Your task to perform on an android device: Set an alarm for 8am Image 0: 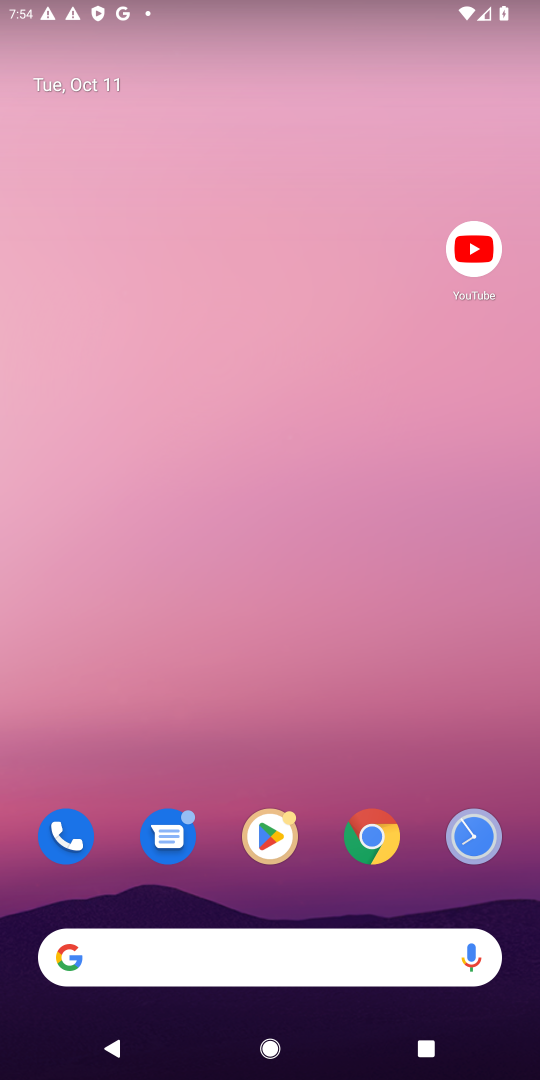
Step 0: drag from (296, 956) to (490, 259)
Your task to perform on an android device: Set an alarm for 8am Image 1: 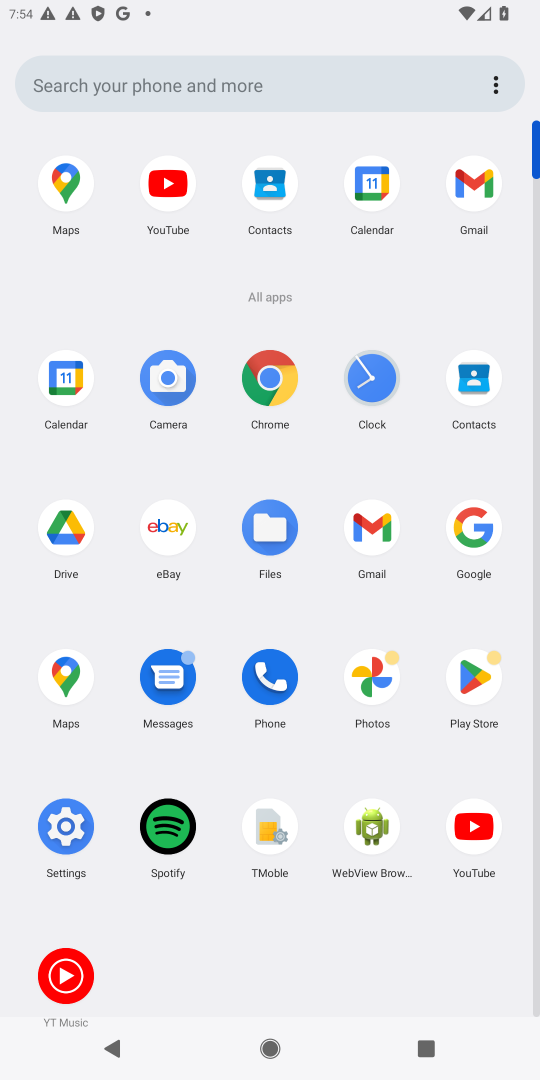
Step 1: click (378, 376)
Your task to perform on an android device: Set an alarm for 8am Image 2: 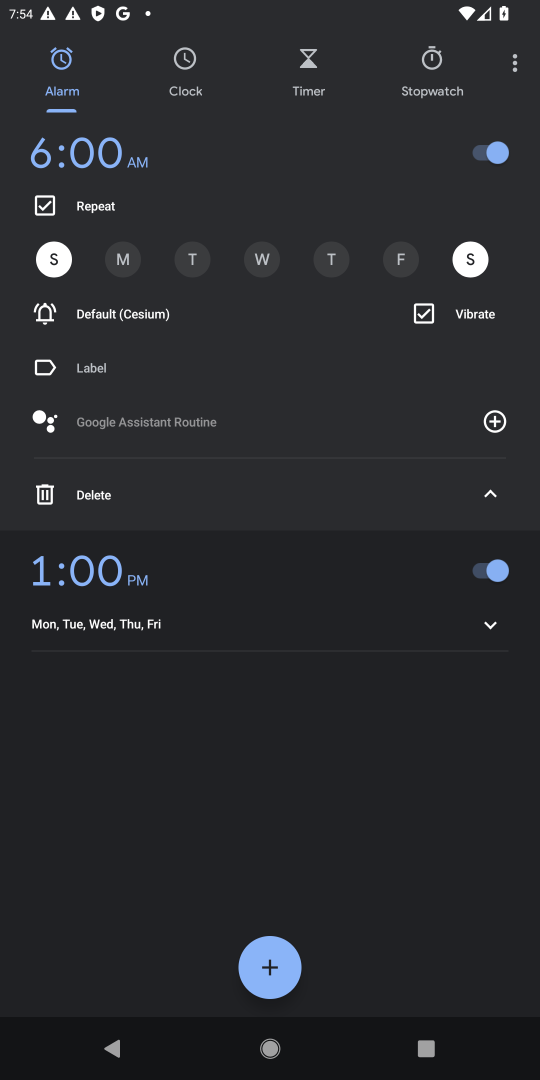
Step 2: click (187, 172)
Your task to perform on an android device: Set an alarm for 8am Image 3: 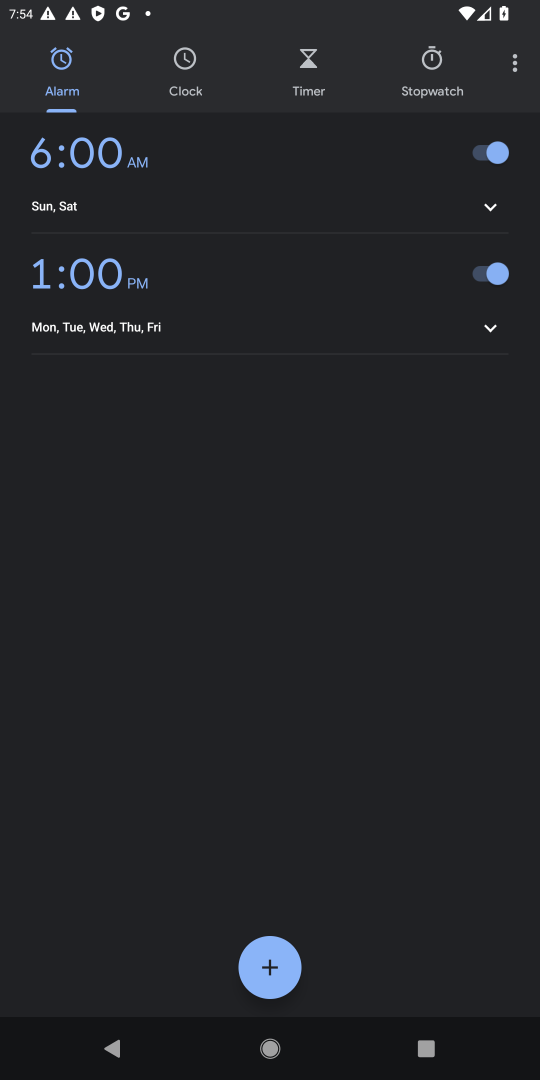
Step 3: click (73, 155)
Your task to perform on an android device: Set an alarm for 8am Image 4: 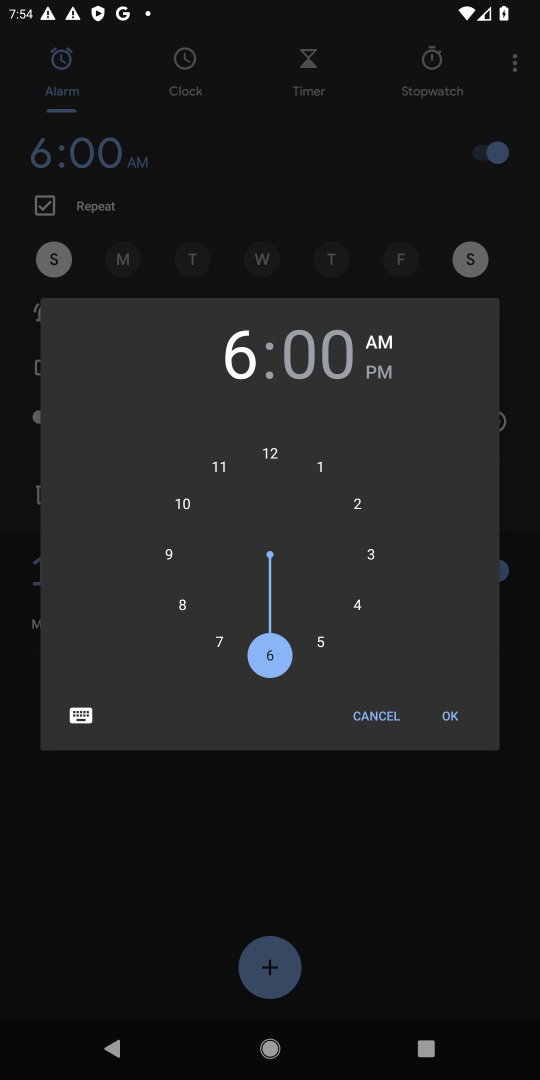
Step 4: click (185, 607)
Your task to perform on an android device: Set an alarm for 8am Image 5: 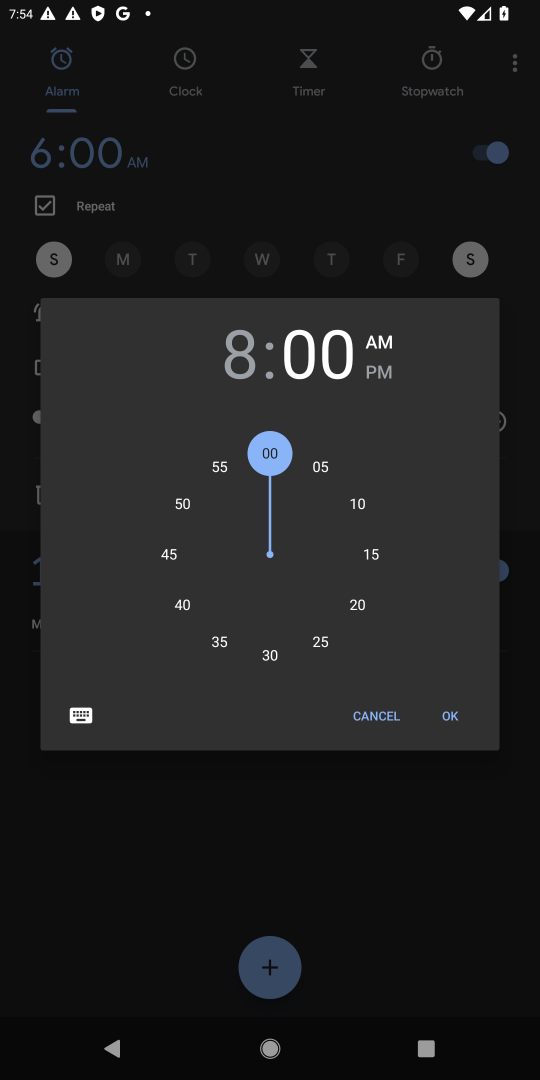
Step 5: click (446, 714)
Your task to perform on an android device: Set an alarm for 8am Image 6: 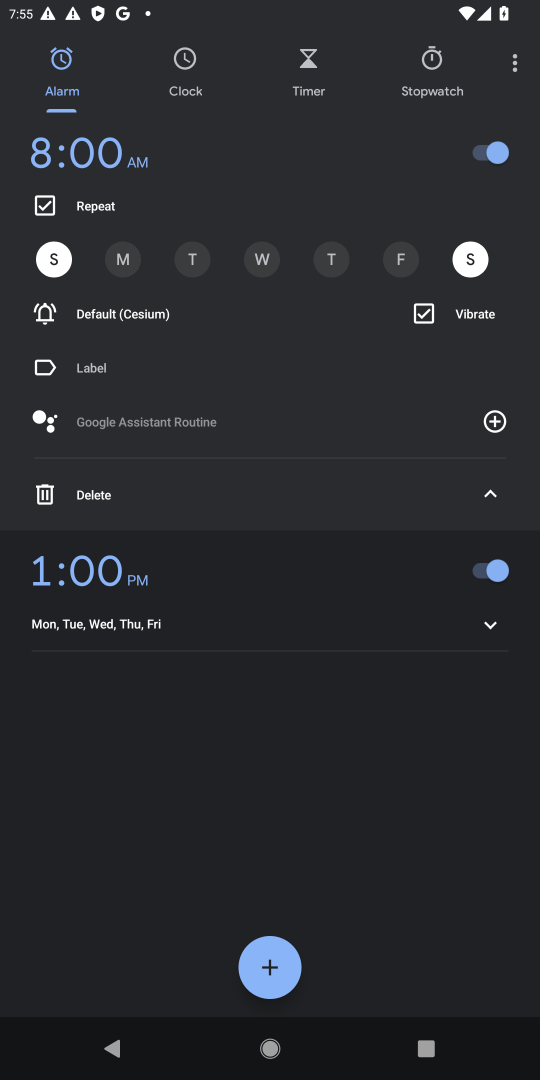
Step 6: task complete